Your task to perform on an android device: Add "logitech g pro" to the cart on target, then select checkout. Image 0: 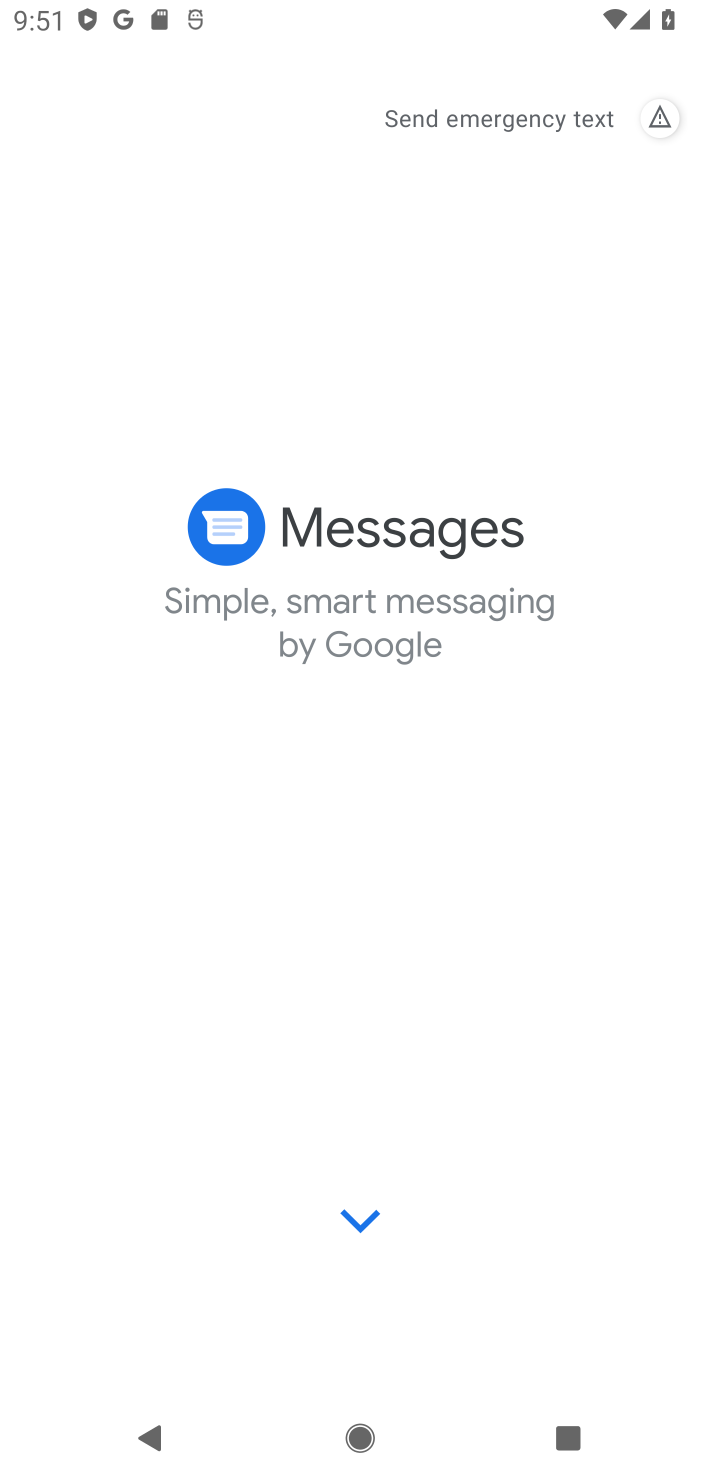
Step 0: press home button
Your task to perform on an android device: Add "logitech g pro" to the cart on target, then select checkout. Image 1: 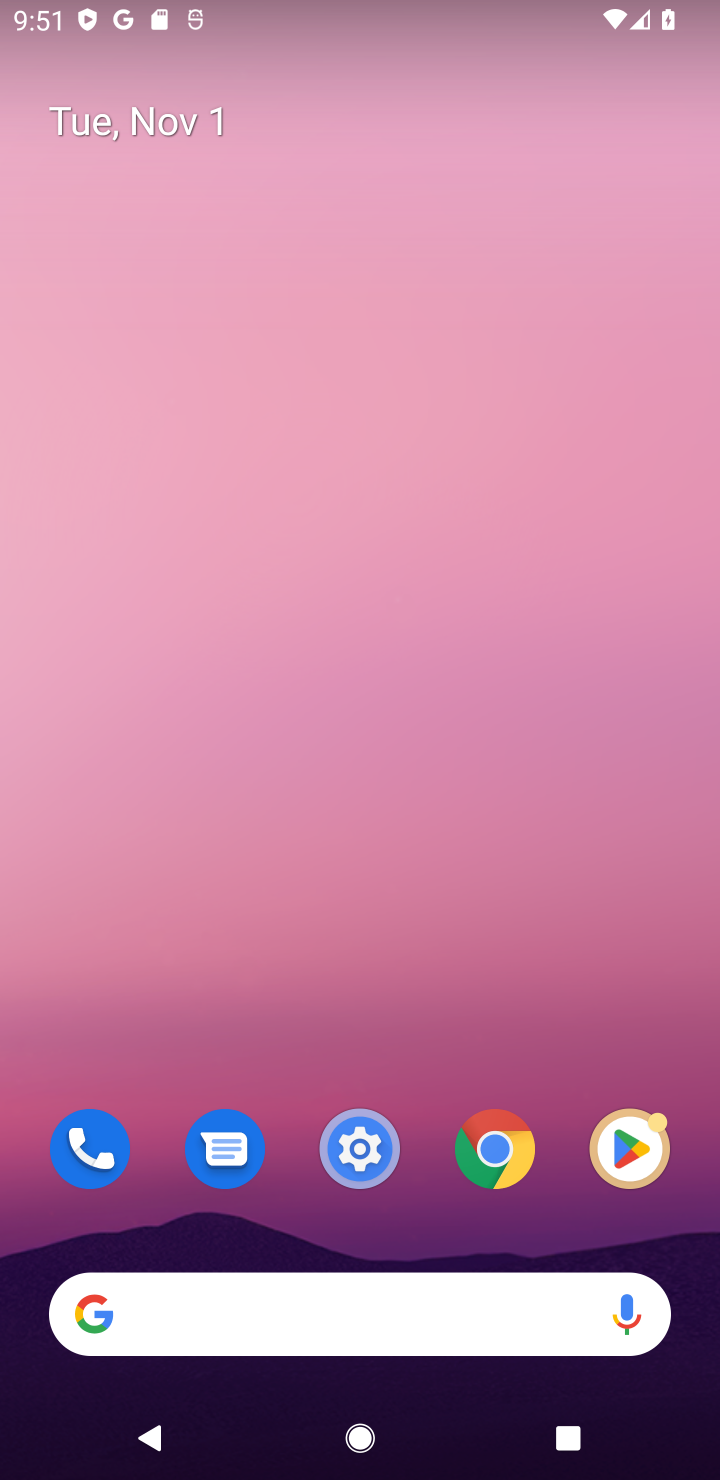
Step 1: click (142, 1298)
Your task to perform on an android device: Add "logitech g pro" to the cart on target, then select checkout. Image 2: 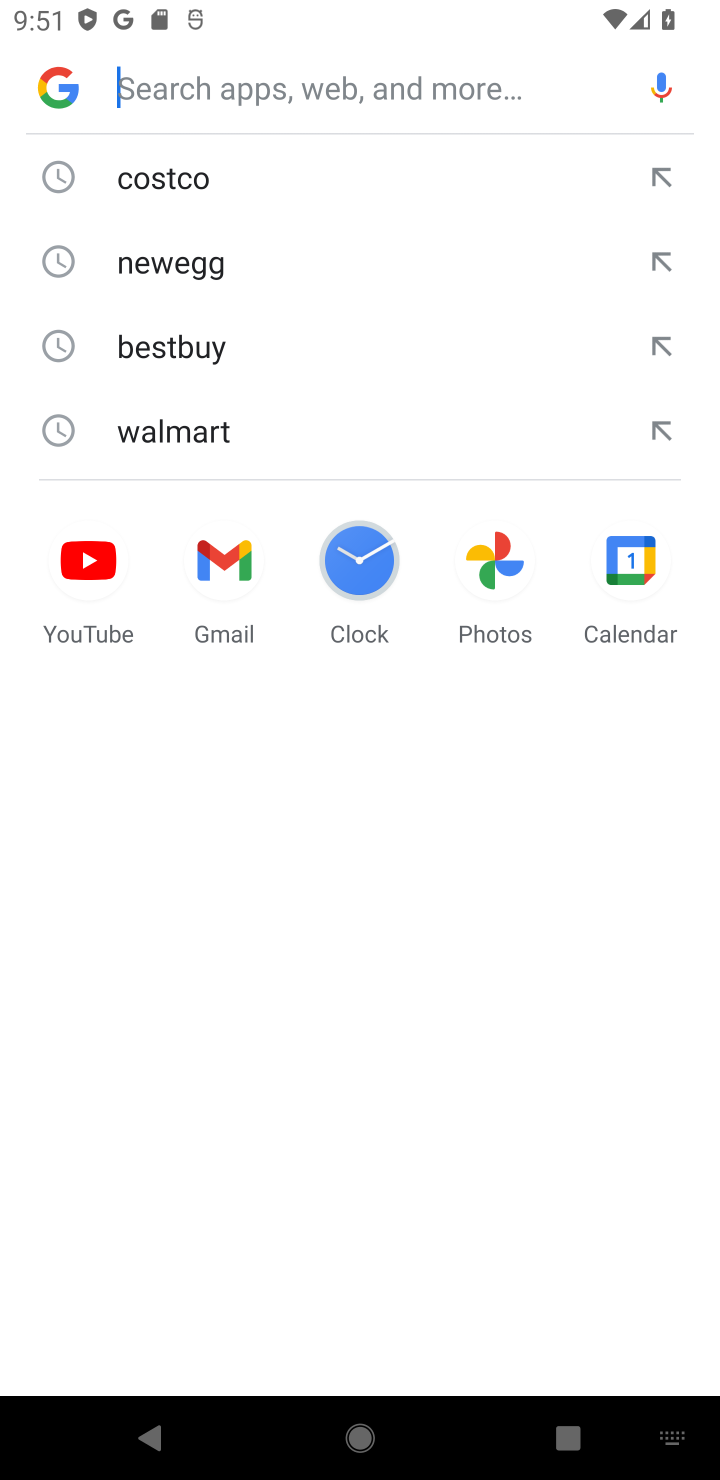
Step 2: type "traget"
Your task to perform on an android device: Add "logitech g pro" to the cart on target, then select checkout. Image 3: 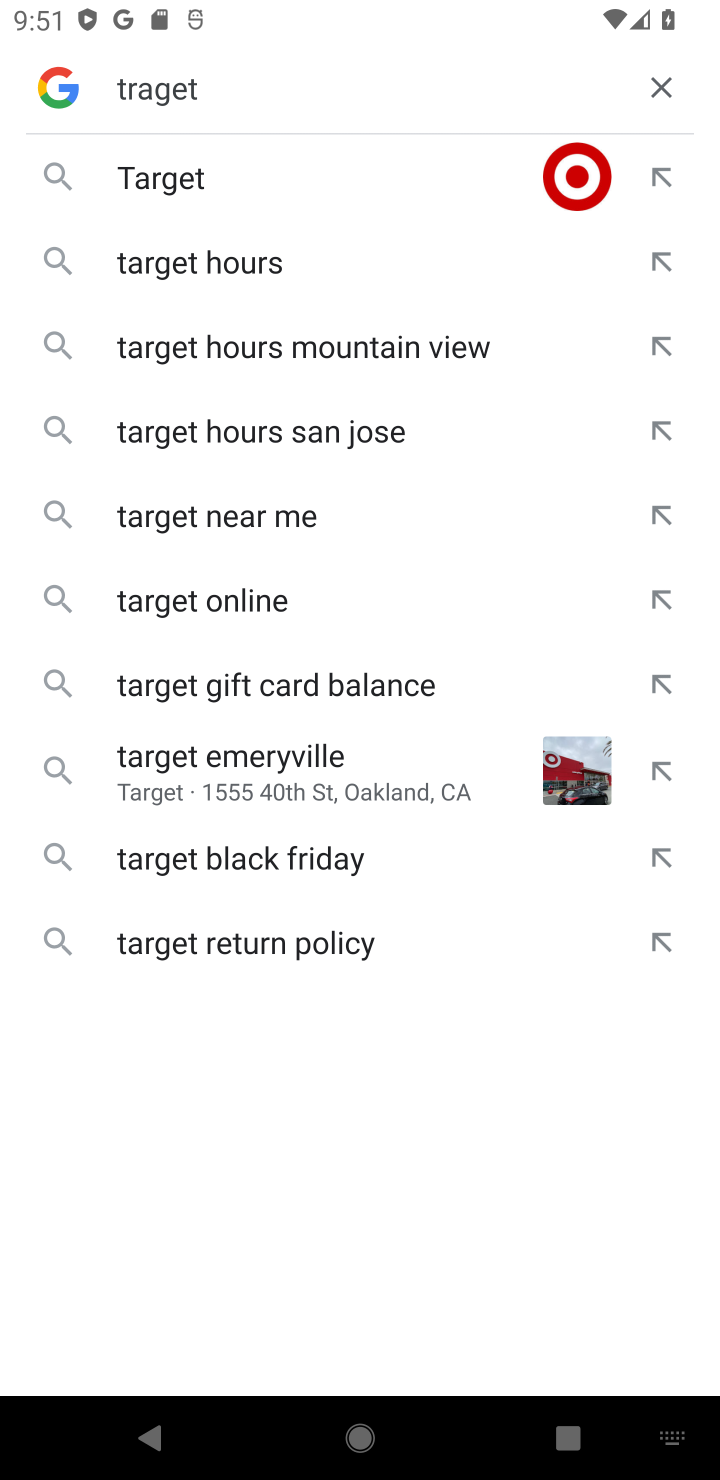
Step 3: press enter
Your task to perform on an android device: Add "logitech g pro" to the cart on target, then select checkout. Image 4: 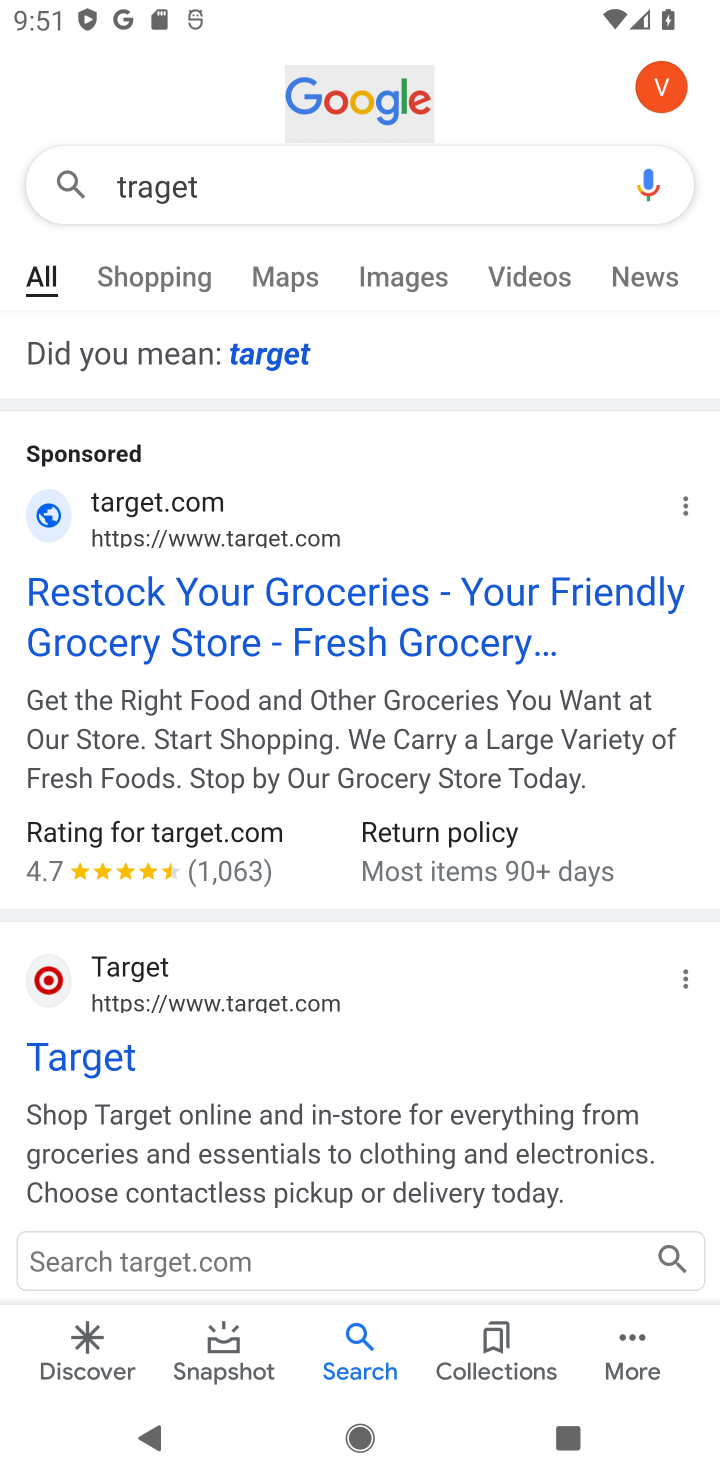
Step 4: click (96, 1054)
Your task to perform on an android device: Add "logitech g pro" to the cart on target, then select checkout. Image 5: 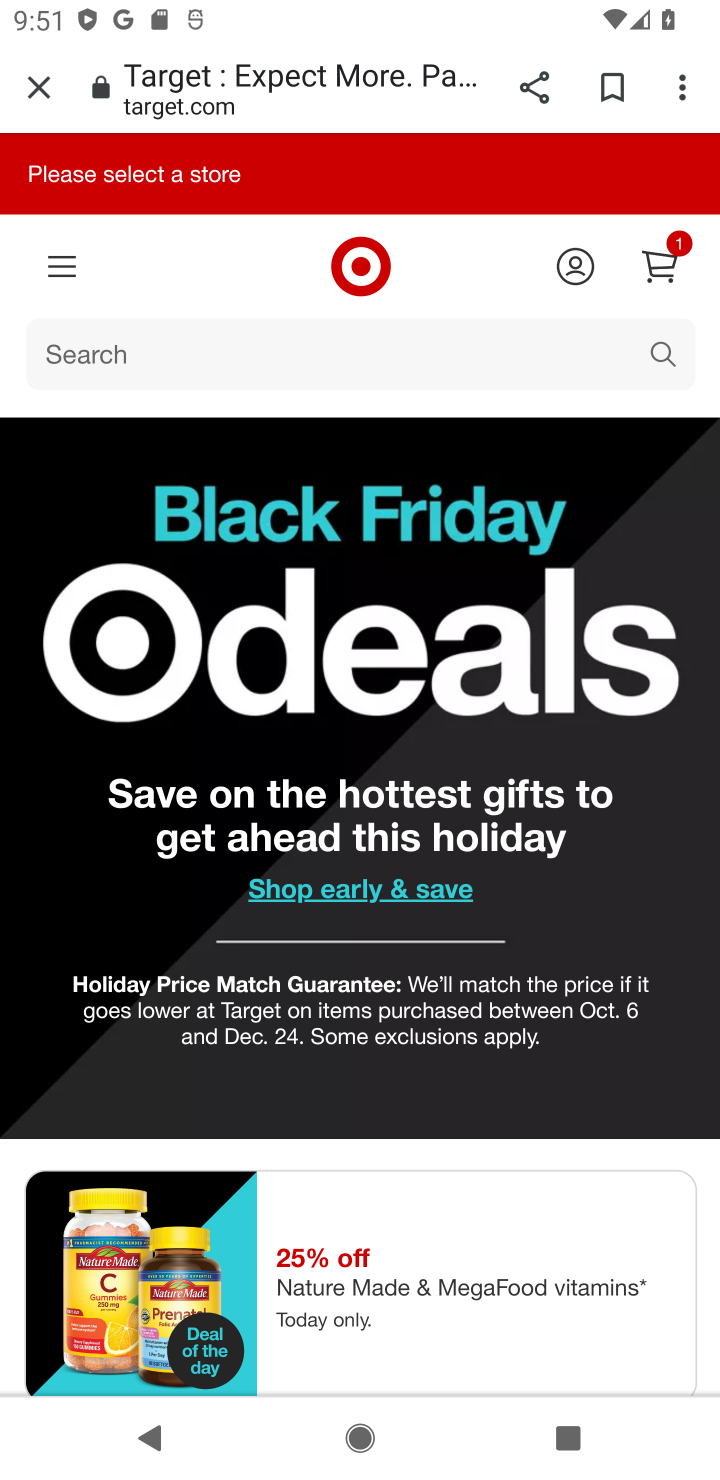
Step 5: click (91, 354)
Your task to perform on an android device: Add "logitech g pro" to the cart on target, then select checkout. Image 6: 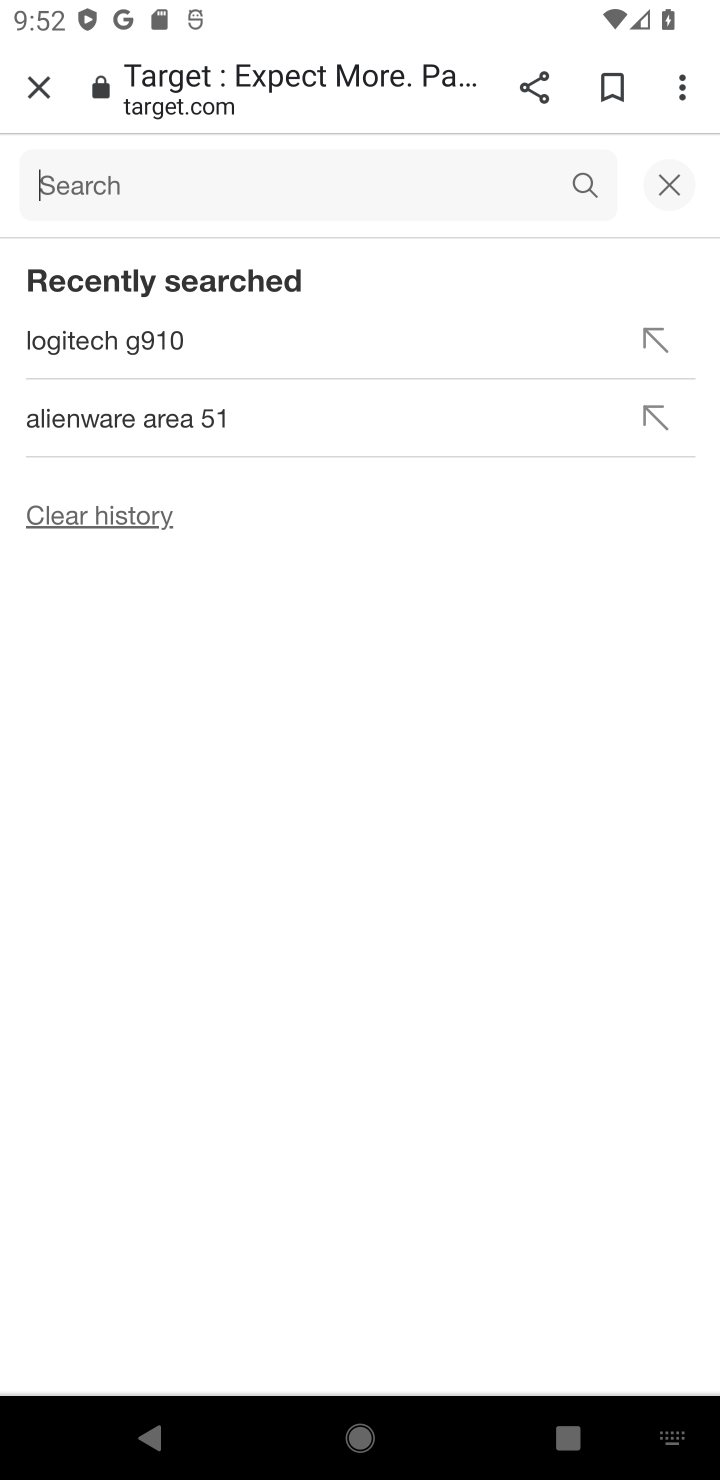
Step 6: type "logitech g pro"
Your task to perform on an android device: Add "logitech g pro" to the cart on target, then select checkout. Image 7: 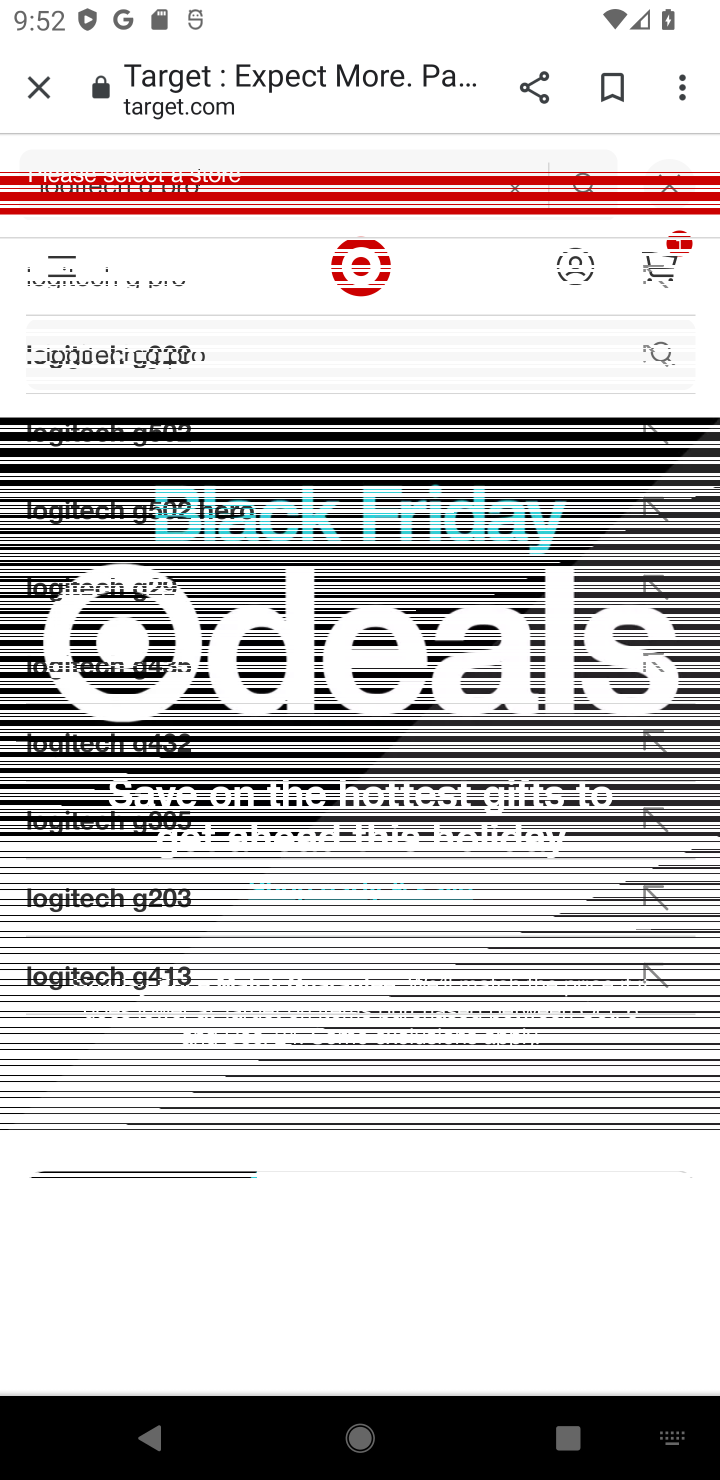
Step 7: press enter
Your task to perform on an android device: Add "logitech g pro" to the cart on target, then select checkout. Image 8: 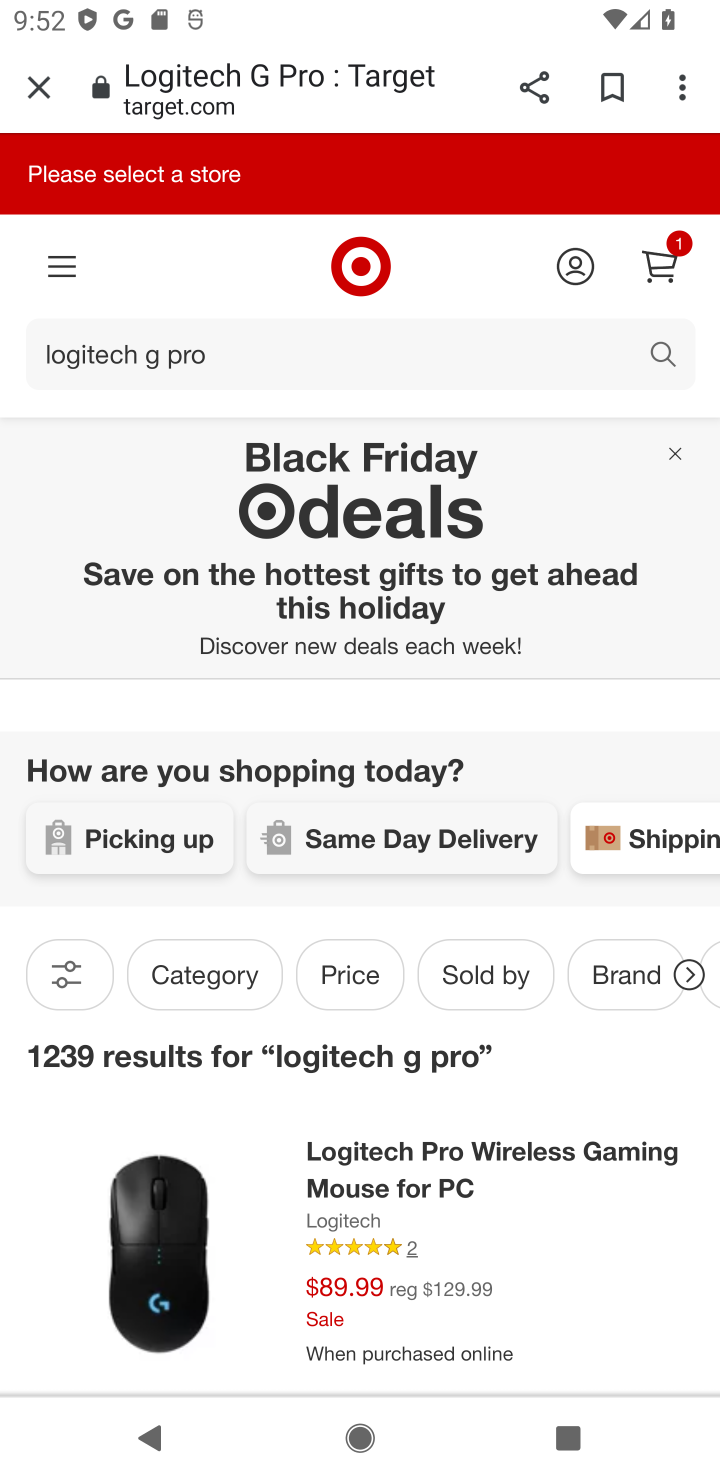
Step 8: click (437, 1199)
Your task to perform on an android device: Add "logitech g pro" to the cart on target, then select checkout. Image 9: 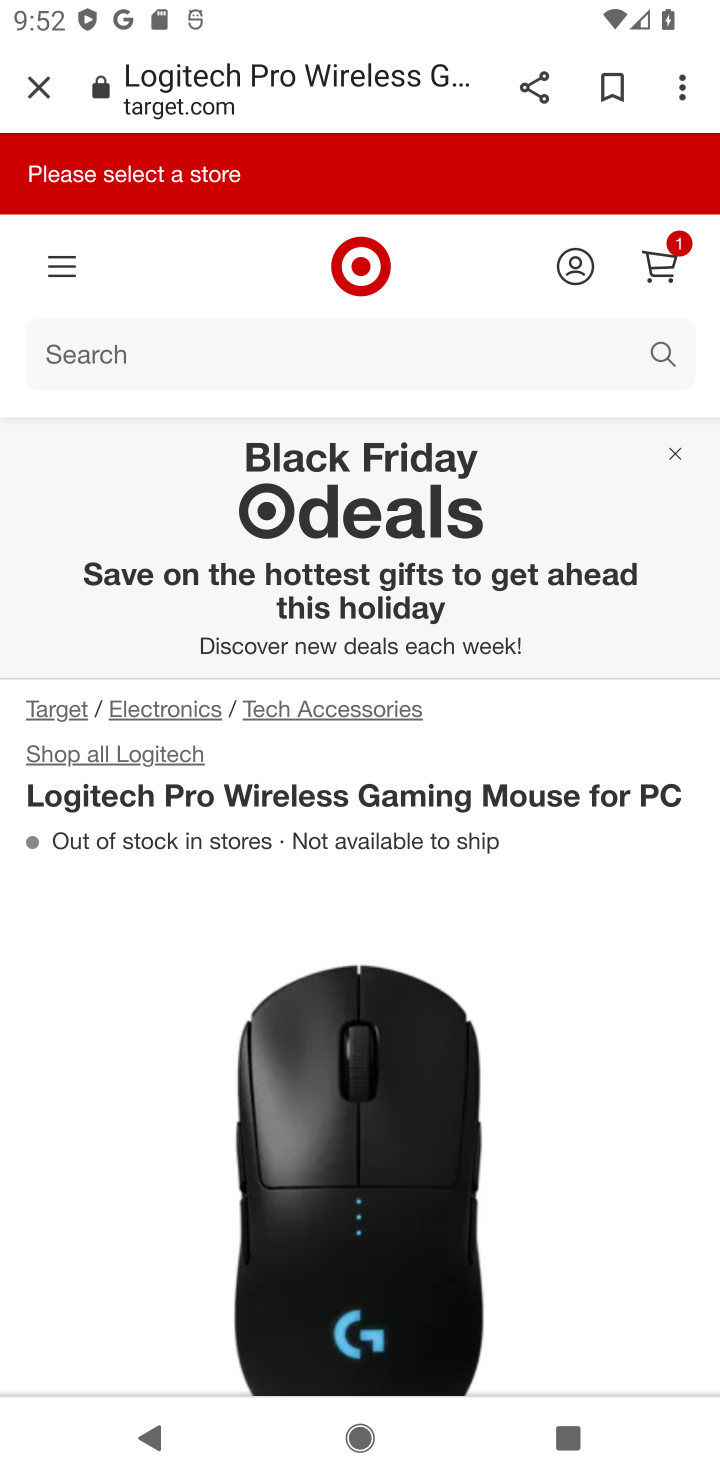
Step 9: drag from (468, 1047) to (425, 403)
Your task to perform on an android device: Add "logitech g pro" to the cart on target, then select checkout. Image 10: 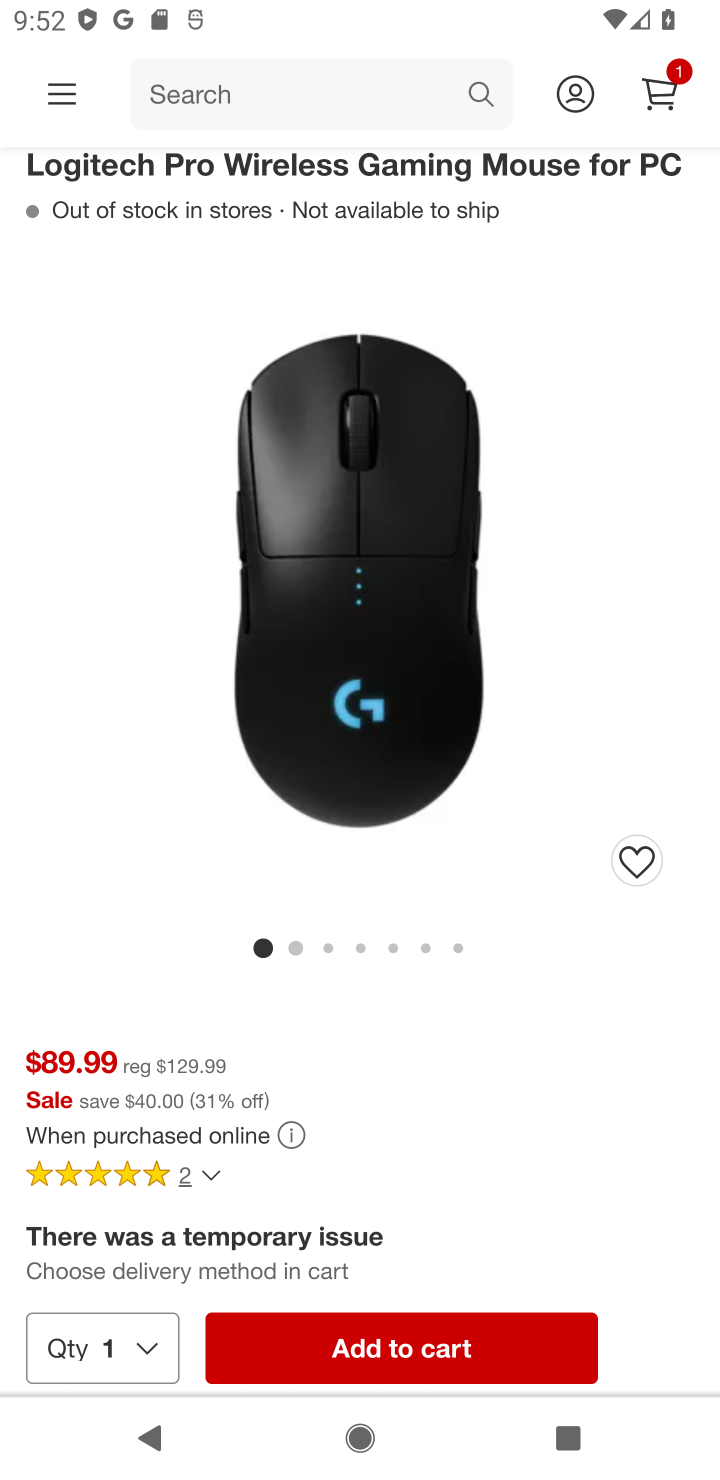
Step 10: click (437, 1341)
Your task to perform on an android device: Add "logitech g pro" to the cart on target, then select checkout. Image 11: 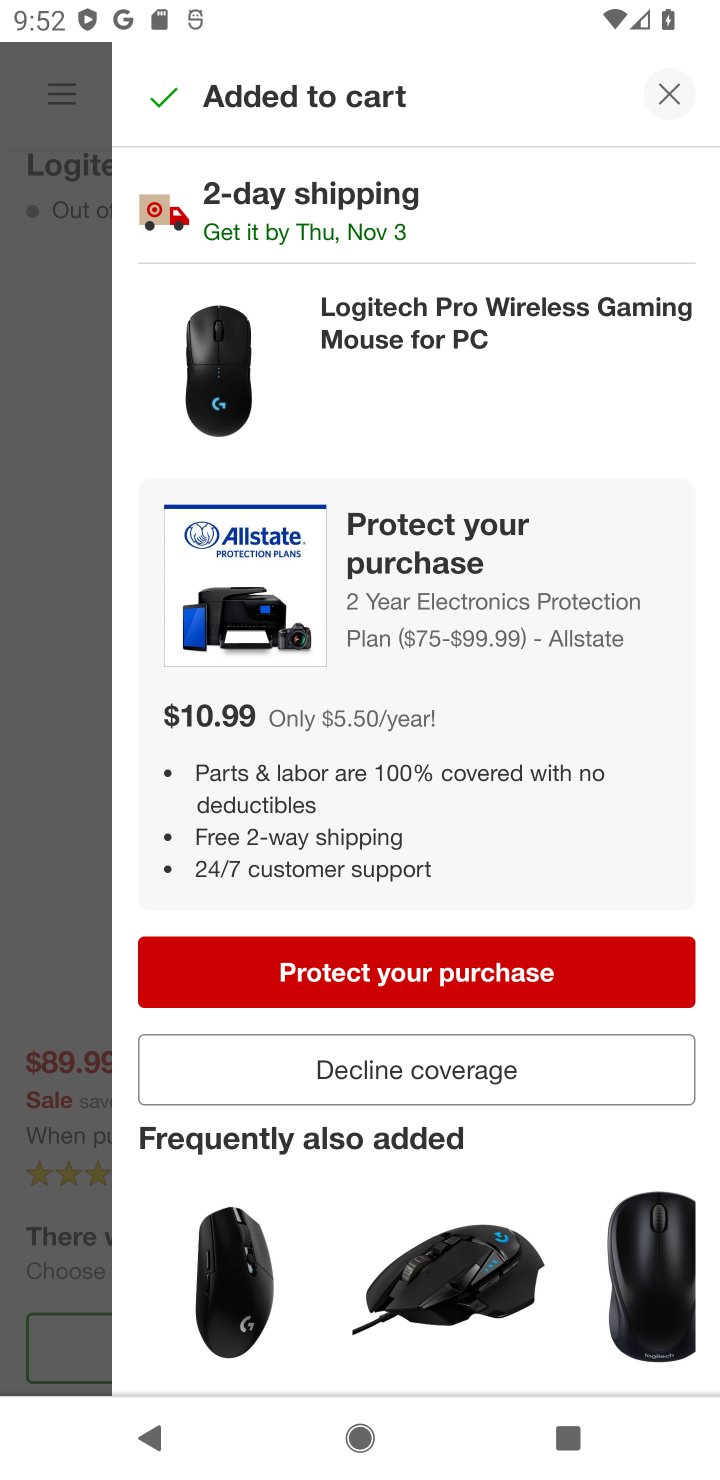
Step 11: click (481, 978)
Your task to perform on an android device: Add "logitech g pro" to the cart on target, then select checkout. Image 12: 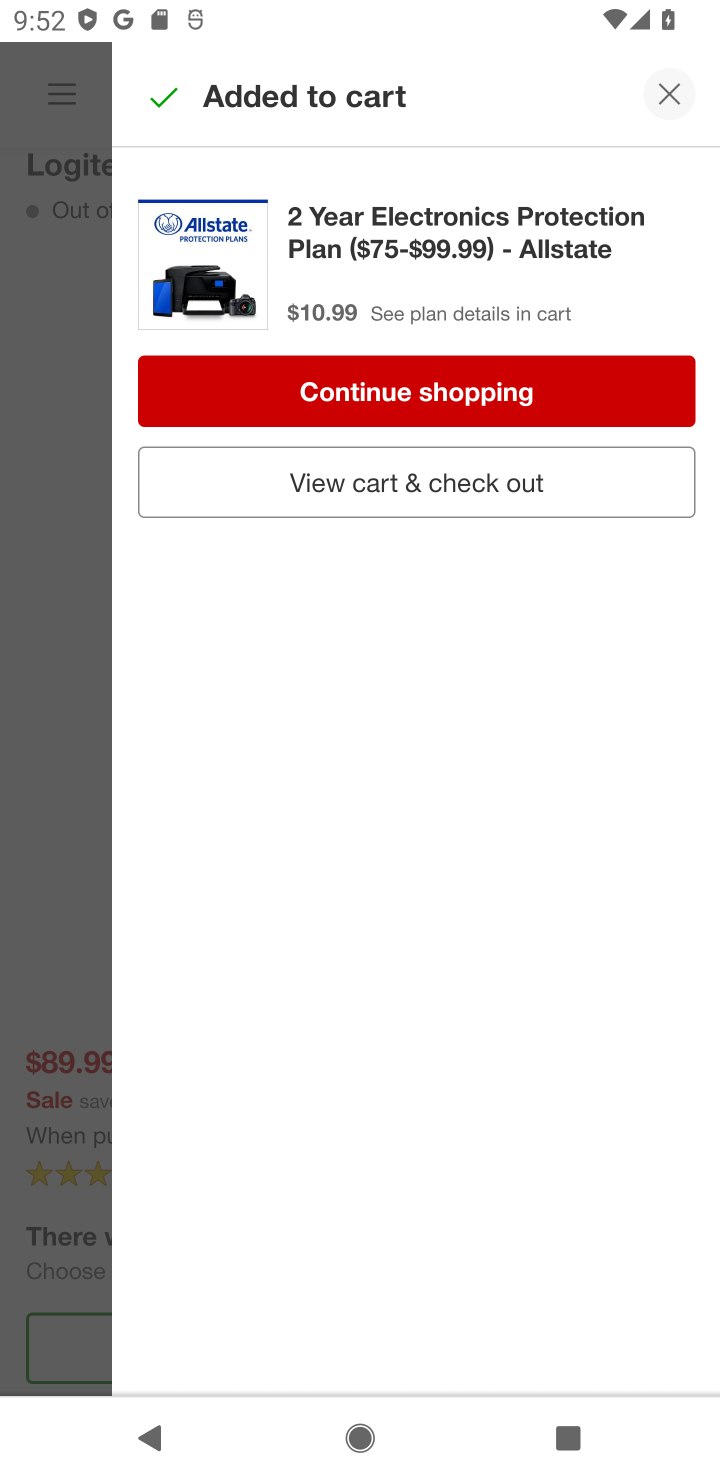
Step 12: click (431, 491)
Your task to perform on an android device: Add "logitech g pro" to the cart on target, then select checkout. Image 13: 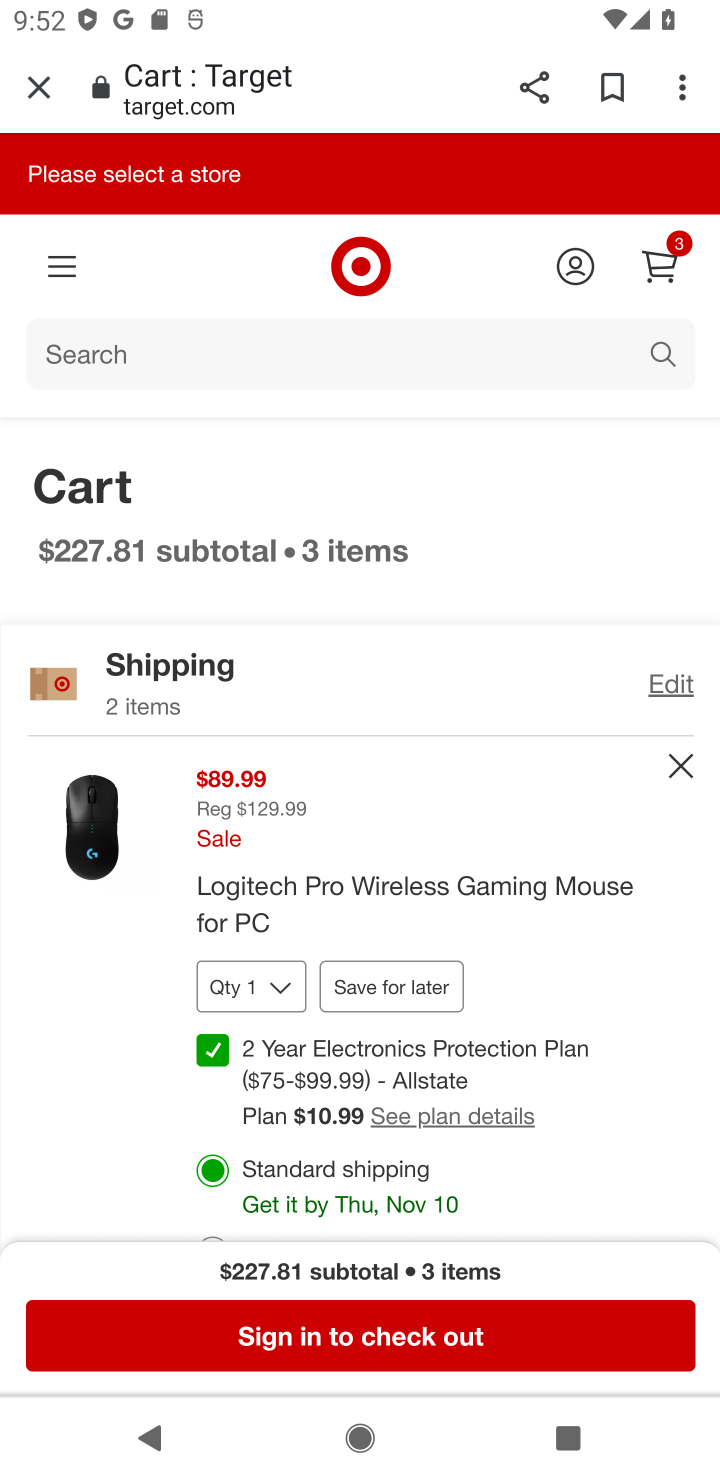
Step 13: task complete